Your task to perform on an android device: Open the phone app and click the voicemail tab. Image 0: 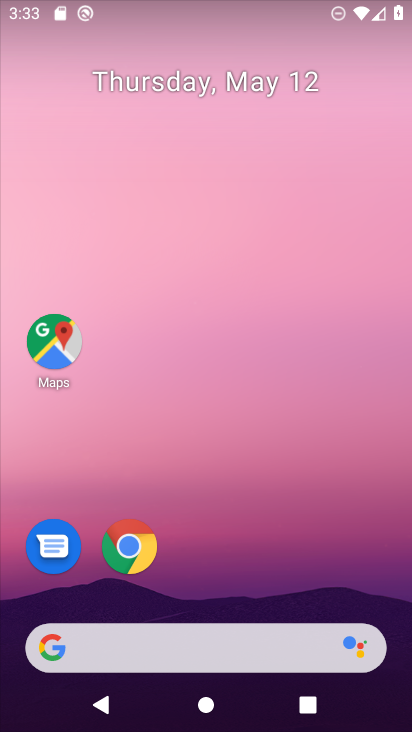
Step 0: drag from (250, 586) to (243, 275)
Your task to perform on an android device: Open the phone app and click the voicemail tab. Image 1: 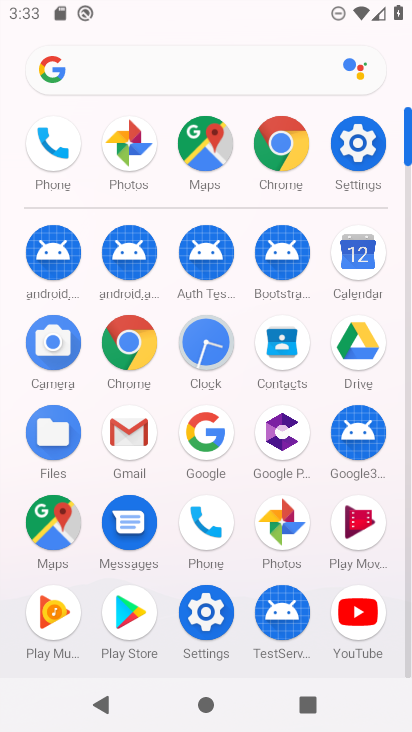
Step 1: click (196, 511)
Your task to perform on an android device: Open the phone app and click the voicemail tab. Image 2: 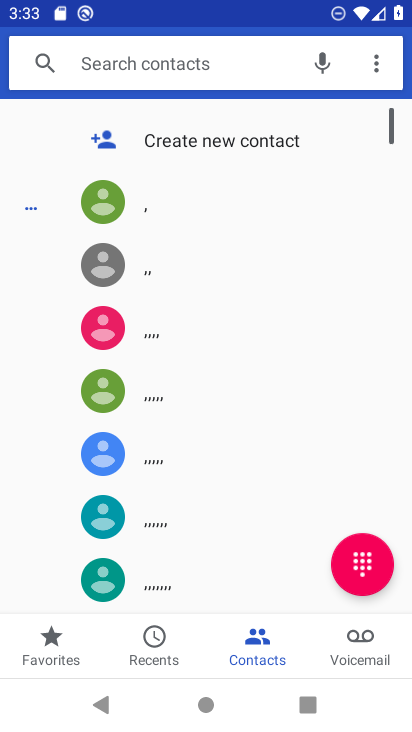
Step 2: click (356, 645)
Your task to perform on an android device: Open the phone app and click the voicemail tab. Image 3: 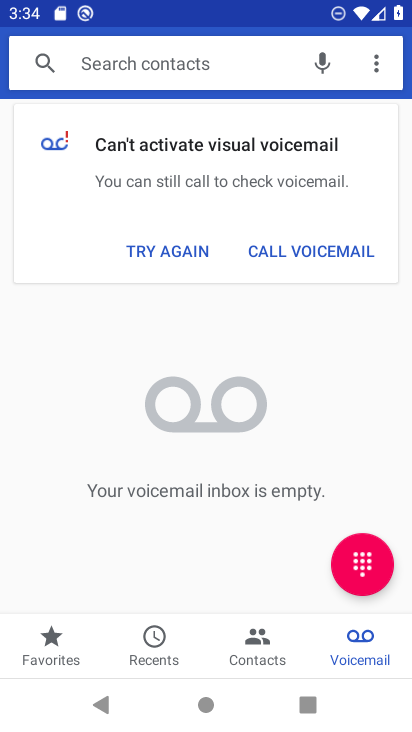
Step 3: task complete